Your task to perform on an android device: change the upload size in google photos Image 0: 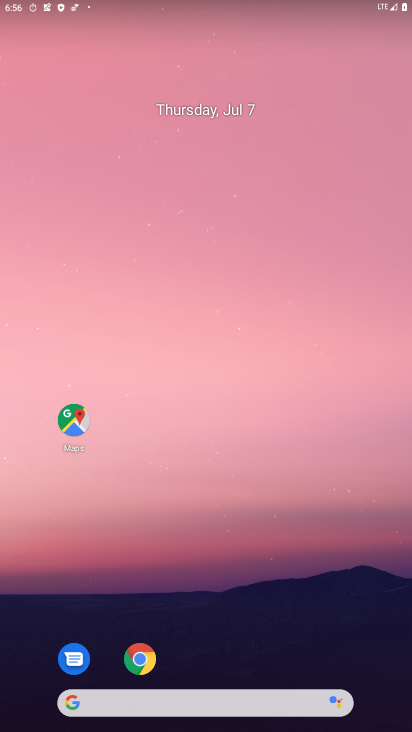
Step 0: drag from (371, 662) to (295, 3)
Your task to perform on an android device: change the upload size in google photos Image 1: 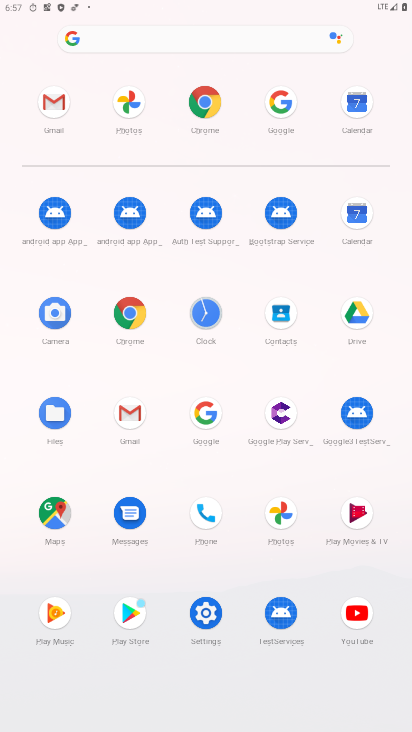
Step 1: click (281, 513)
Your task to perform on an android device: change the upload size in google photos Image 2: 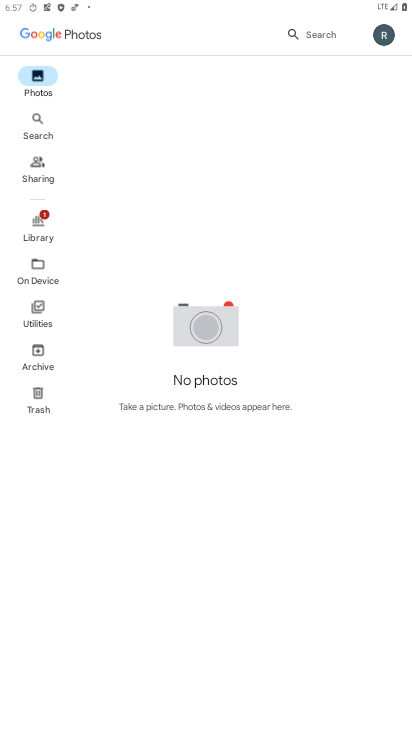
Step 2: click (381, 26)
Your task to perform on an android device: change the upload size in google photos Image 3: 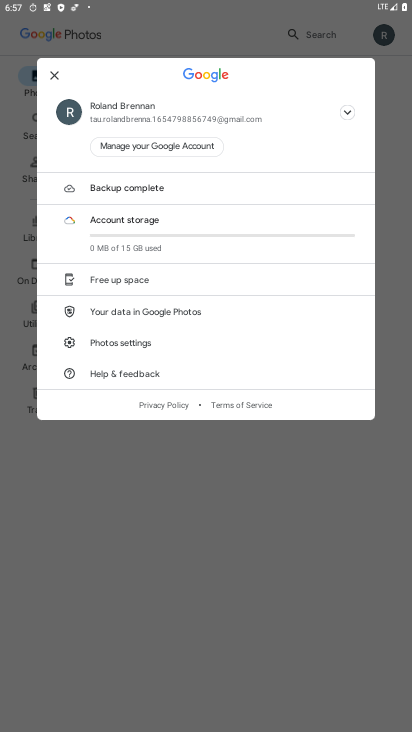
Step 3: click (102, 348)
Your task to perform on an android device: change the upload size in google photos Image 4: 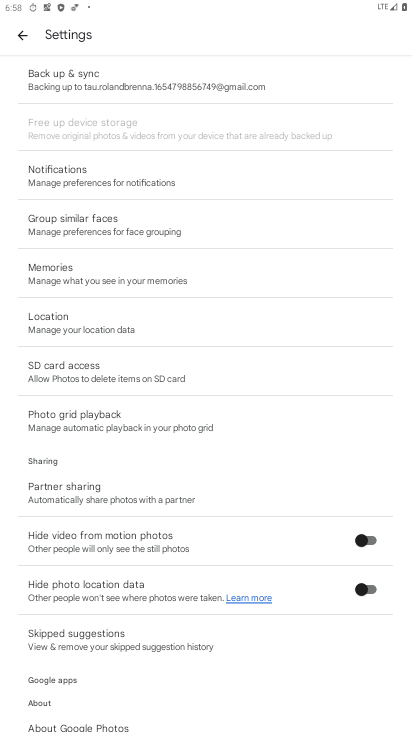
Step 4: task complete